Your task to perform on an android device: clear history in the chrome app Image 0: 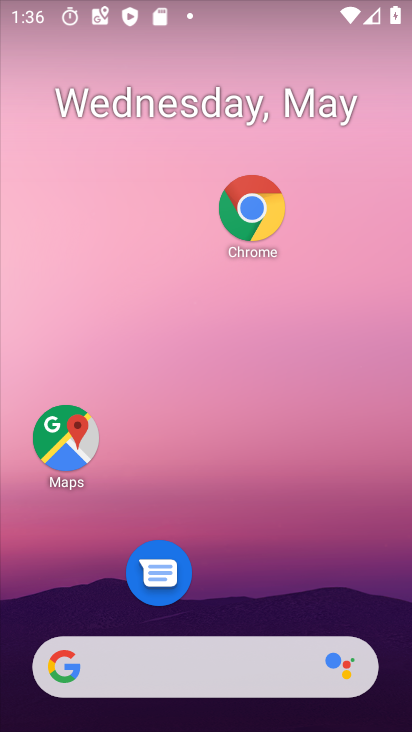
Step 0: click (263, 199)
Your task to perform on an android device: clear history in the chrome app Image 1: 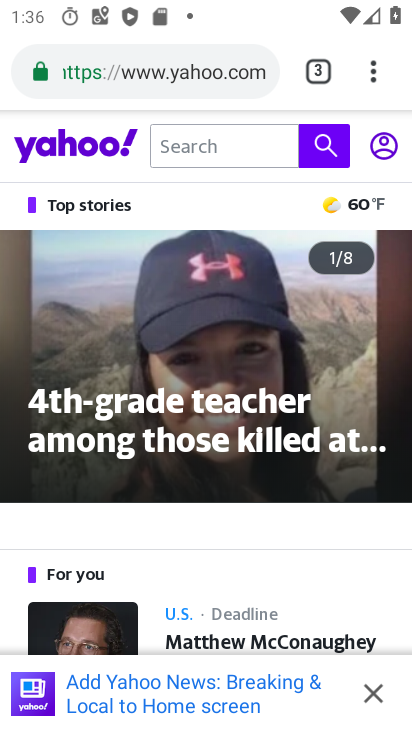
Step 1: click (387, 63)
Your task to perform on an android device: clear history in the chrome app Image 2: 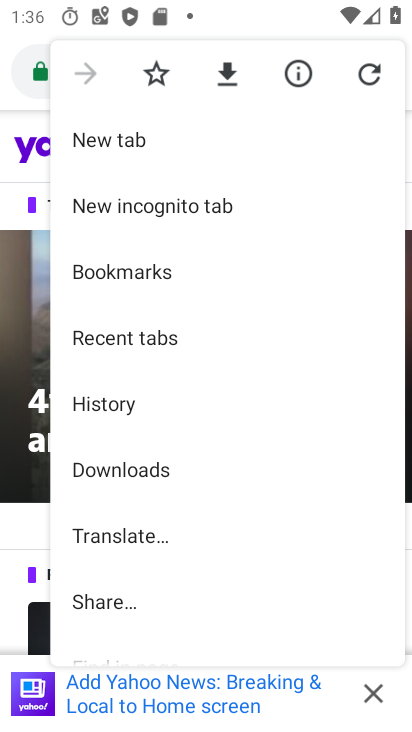
Step 2: click (110, 397)
Your task to perform on an android device: clear history in the chrome app Image 3: 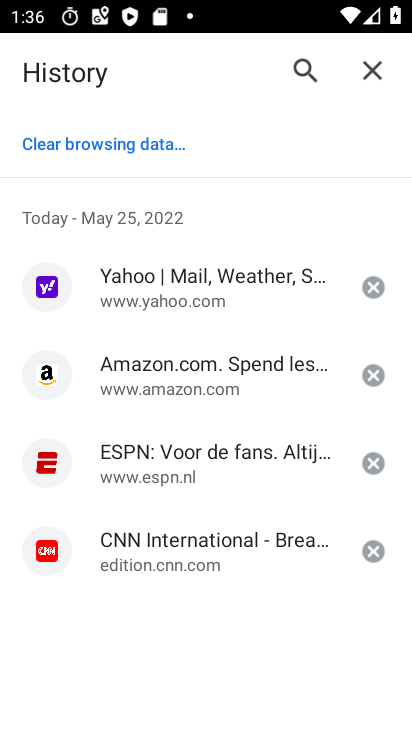
Step 3: click (94, 146)
Your task to perform on an android device: clear history in the chrome app Image 4: 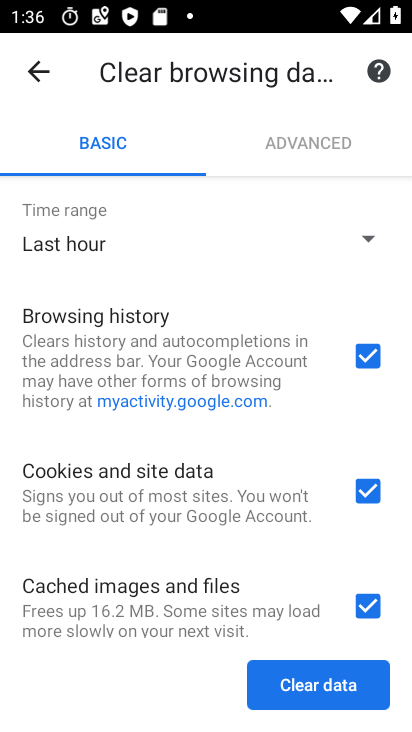
Step 4: click (369, 487)
Your task to perform on an android device: clear history in the chrome app Image 5: 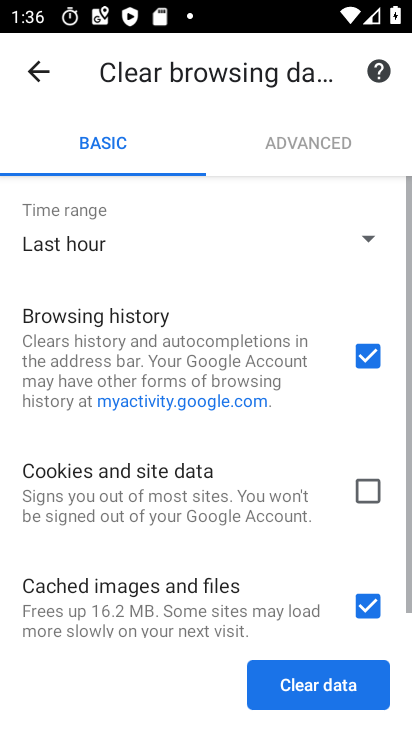
Step 5: click (375, 612)
Your task to perform on an android device: clear history in the chrome app Image 6: 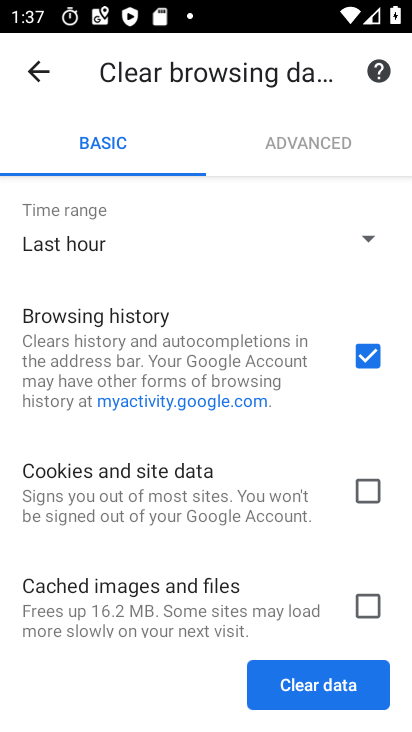
Step 6: click (296, 700)
Your task to perform on an android device: clear history in the chrome app Image 7: 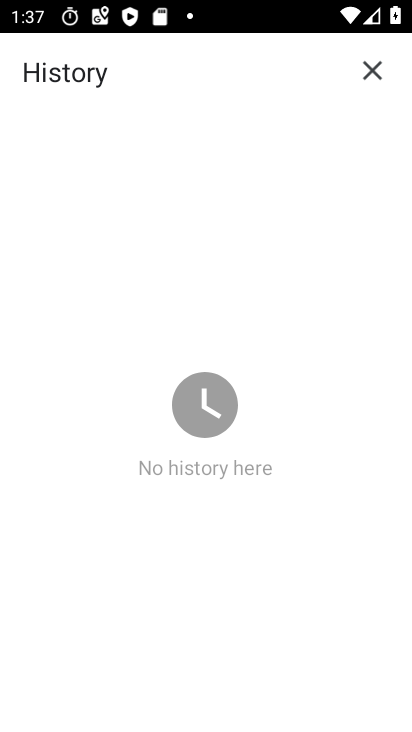
Step 7: task complete